Your task to perform on an android device: find photos in the google photos app Image 0: 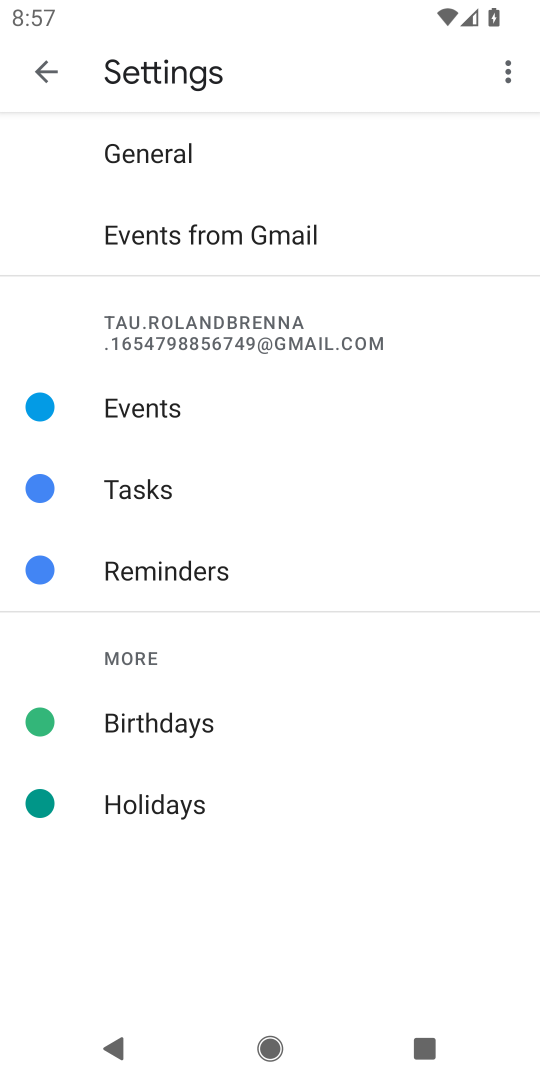
Step 0: press home button
Your task to perform on an android device: find photos in the google photos app Image 1: 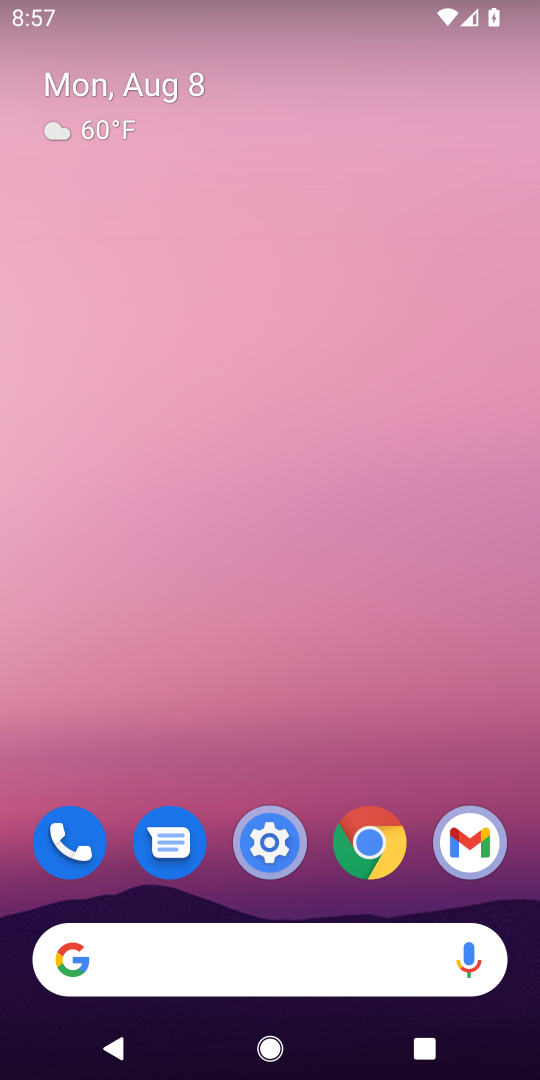
Step 1: click (223, 47)
Your task to perform on an android device: find photos in the google photos app Image 2: 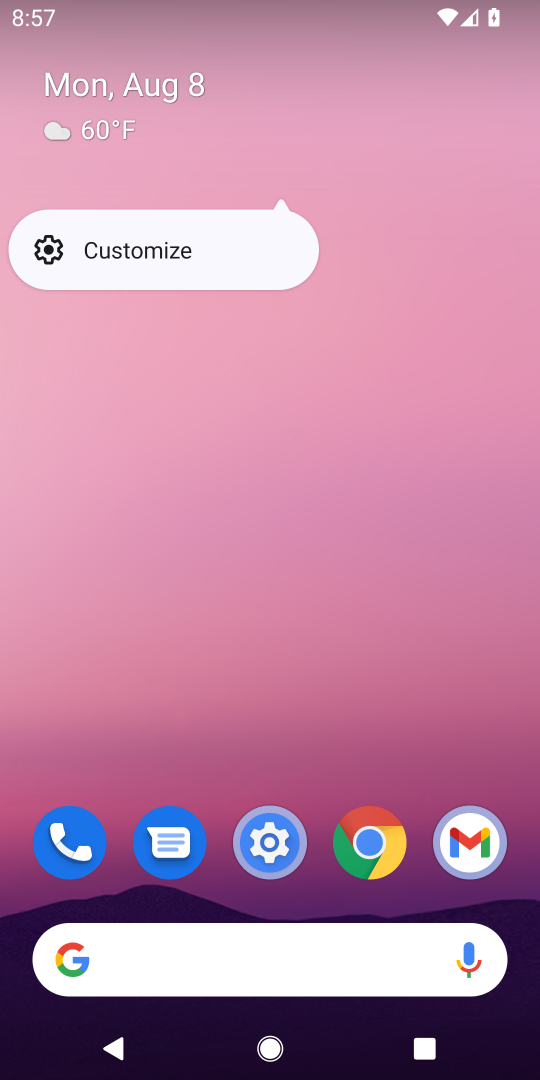
Step 2: click (241, 585)
Your task to perform on an android device: find photos in the google photos app Image 3: 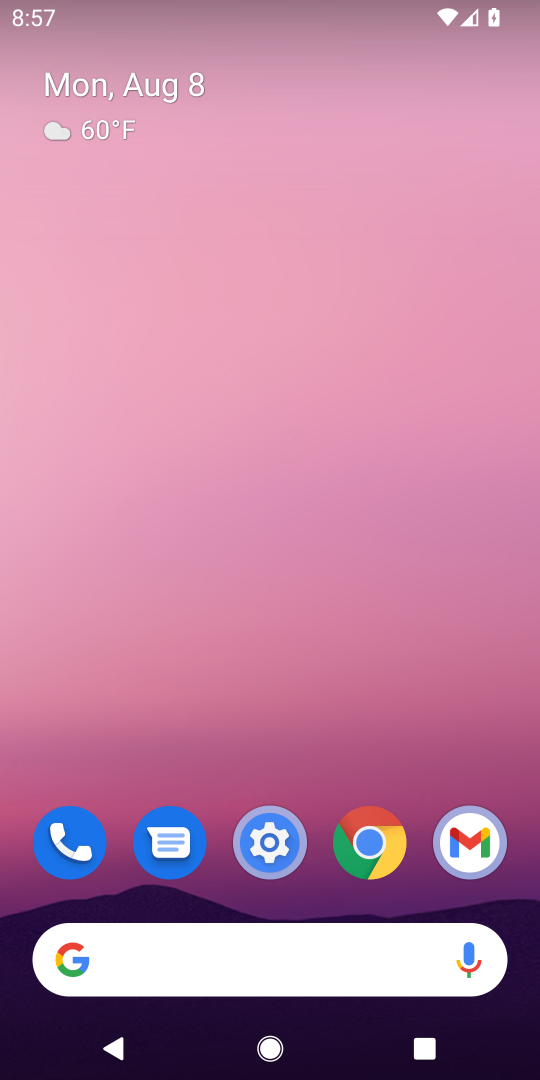
Step 3: drag from (219, 227) to (219, 37)
Your task to perform on an android device: find photos in the google photos app Image 4: 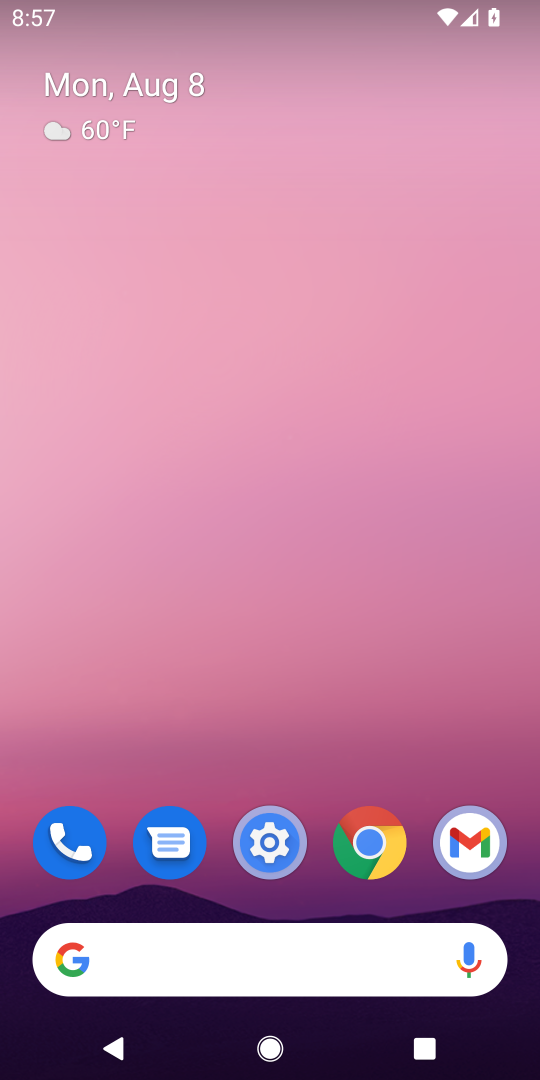
Step 4: drag from (238, 765) to (238, 169)
Your task to perform on an android device: find photos in the google photos app Image 5: 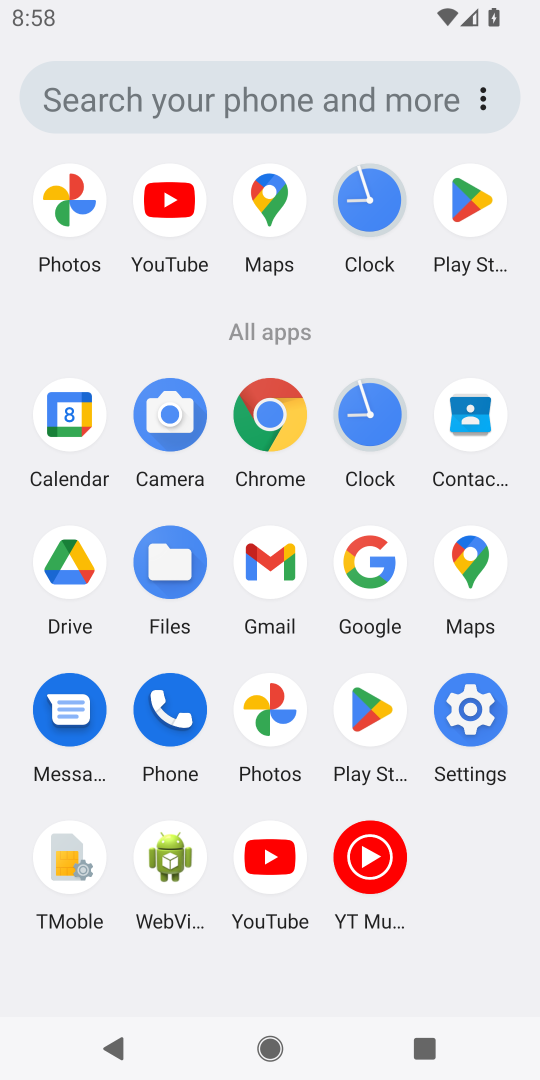
Step 5: click (271, 722)
Your task to perform on an android device: find photos in the google photos app Image 6: 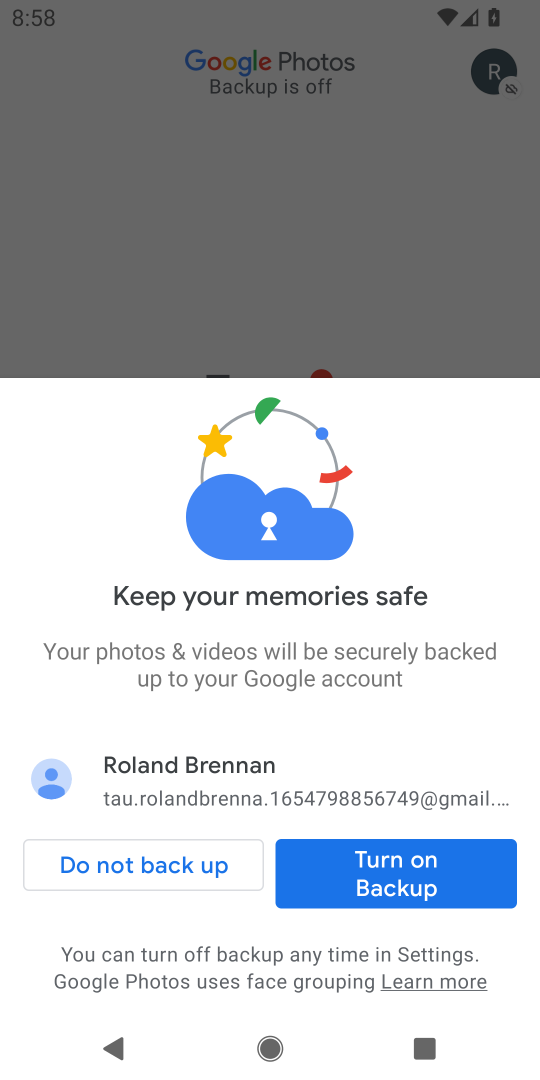
Step 6: click (102, 885)
Your task to perform on an android device: find photos in the google photos app Image 7: 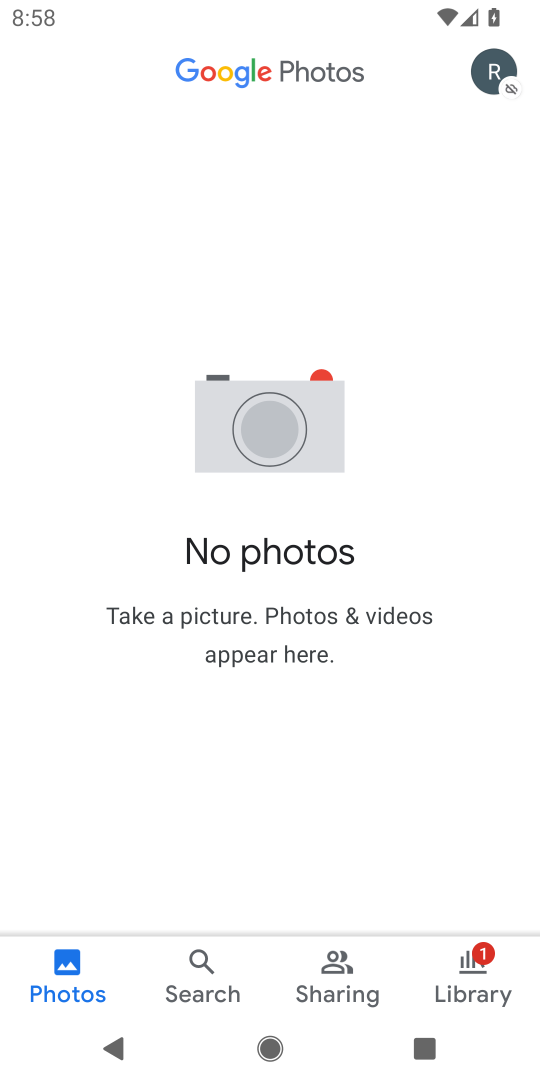
Step 7: task complete